Your task to perform on an android device: turn vacation reply on in the gmail app Image 0: 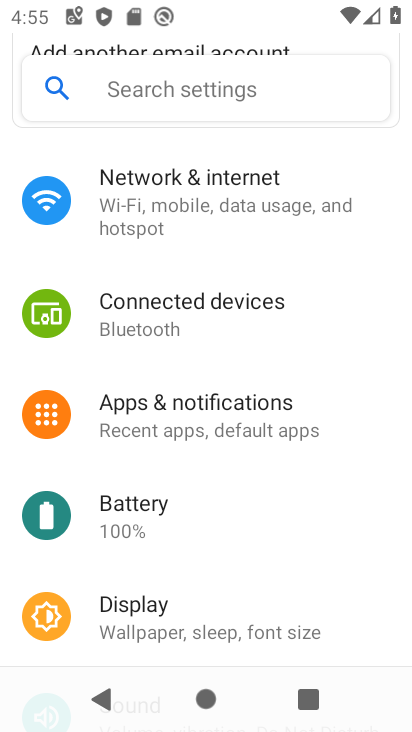
Step 0: press home button
Your task to perform on an android device: turn vacation reply on in the gmail app Image 1: 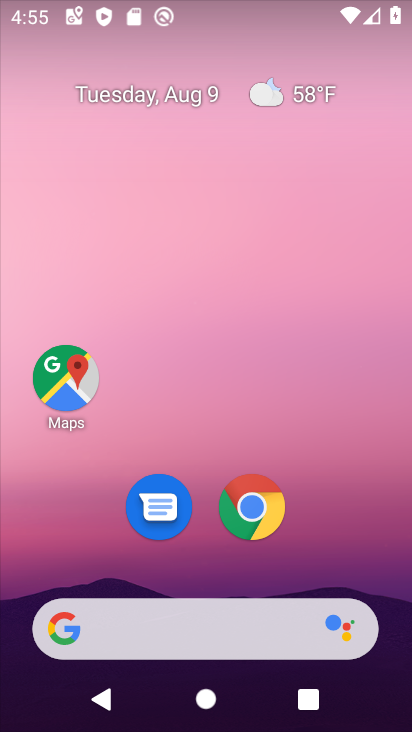
Step 1: drag from (308, 568) to (323, 0)
Your task to perform on an android device: turn vacation reply on in the gmail app Image 2: 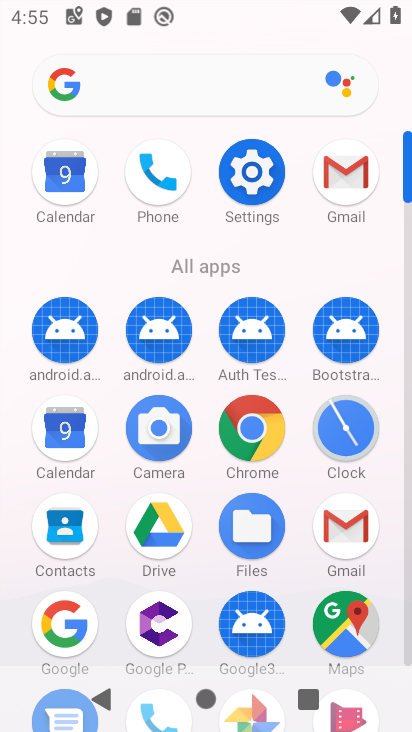
Step 2: click (346, 166)
Your task to perform on an android device: turn vacation reply on in the gmail app Image 3: 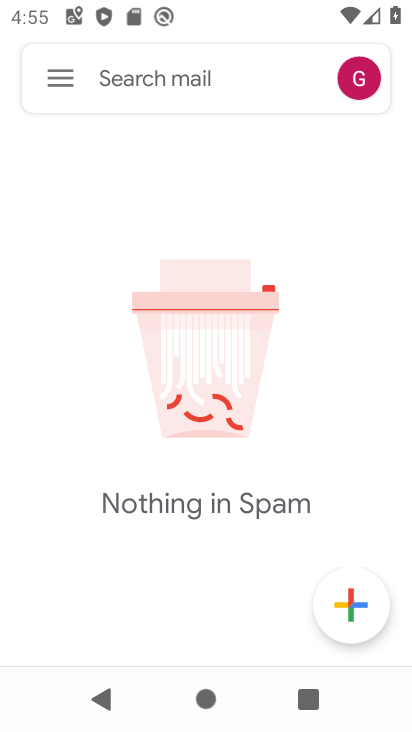
Step 3: click (62, 68)
Your task to perform on an android device: turn vacation reply on in the gmail app Image 4: 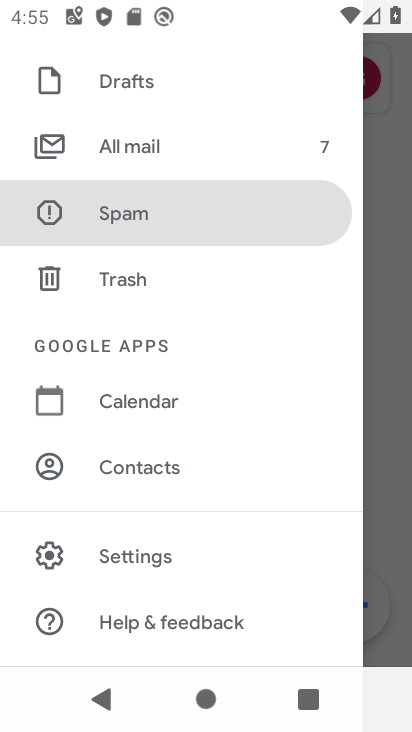
Step 4: click (172, 527)
Your task to perform on an android device: turn vacation reply on in the gmail app Image 5: 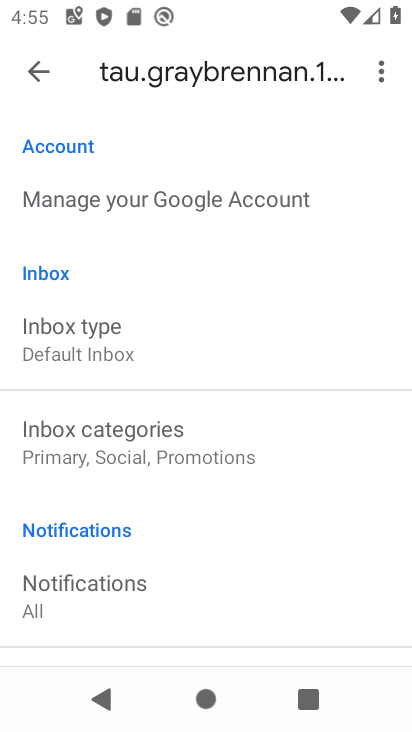
Step 5: drag from (193, 591) to (193, 159)
Your task to perform on an android device: turn vacation reply on in the gmail app Image 6: 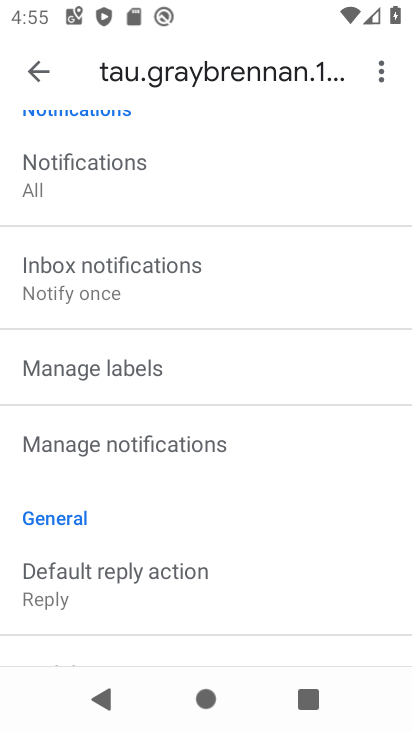
Step 6: drag from (168, 576) to (158, 53)
Your task to perform on an android device: turn vacation reply on in the gmail app Image 7: 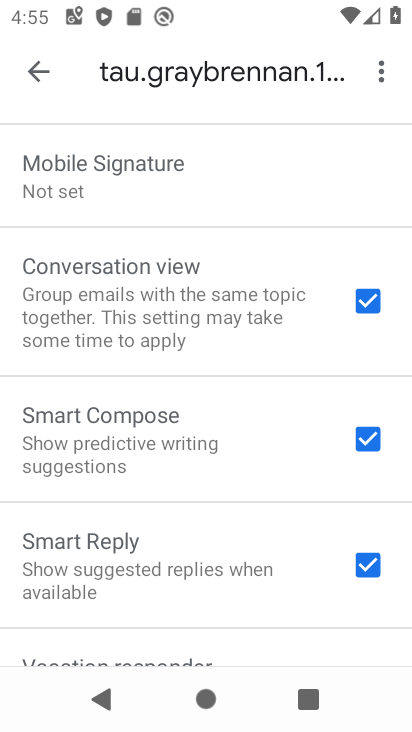
Step 7: drag from (181, 485) to (215, 4)
Your task to perform on an android device: turn vacation reply on in the gmail app Image 8: 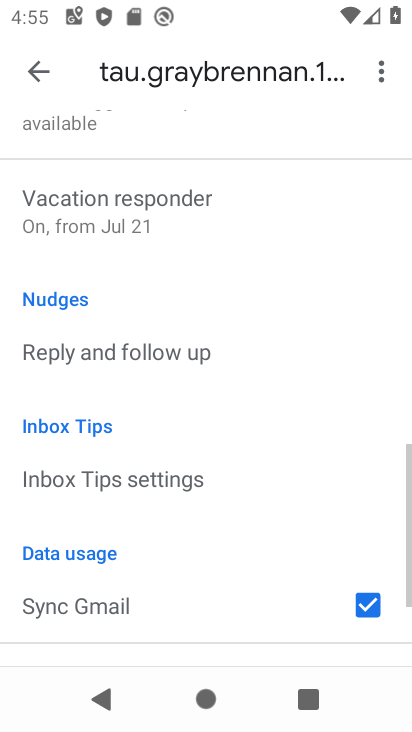
Step 8: click (203, 197)
Your task to perform on an android device: turn vacation reply on in the gmail app Image 9: 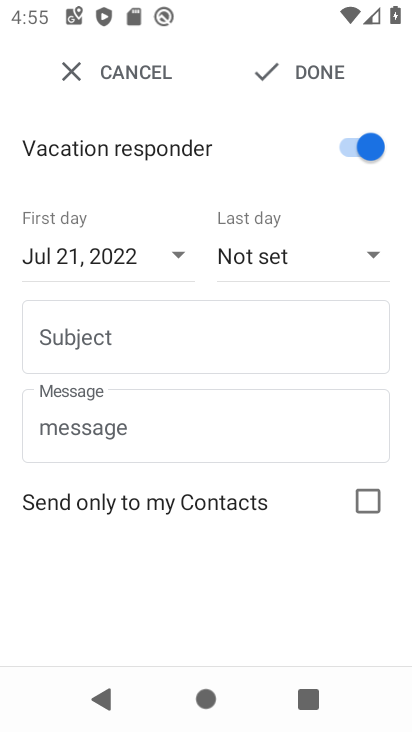
Step 9: click (321, 71)
Your task to perform on an android device: turn vacation reply on in the gmail app Image 10: 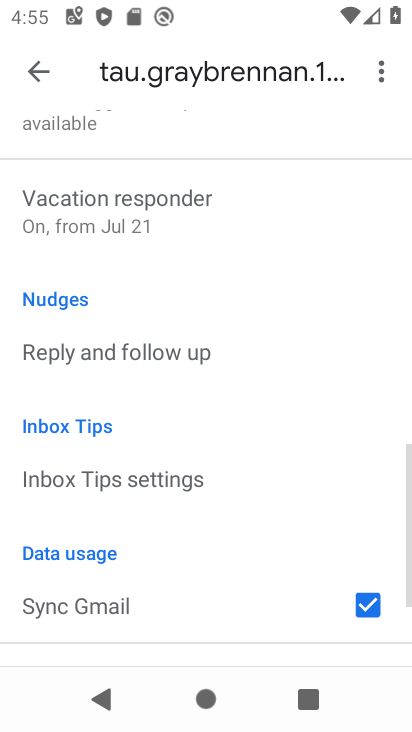
Step 10: task complete